Your task to perform on an android device: Show me popular videos on Youtube Image 0: 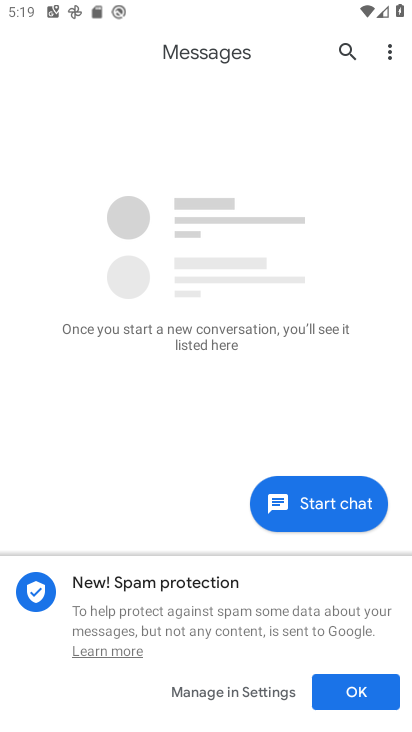
Step 0: press home button
Your task to perform on an android device: Show me popular videos on Youtube Image 1: 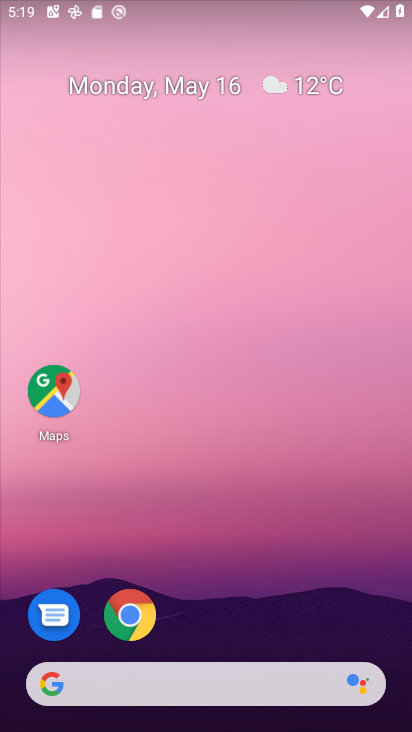
Step 1: press home button
Your task to perform on an android device: Show me popular videos on Youtube Image 2: 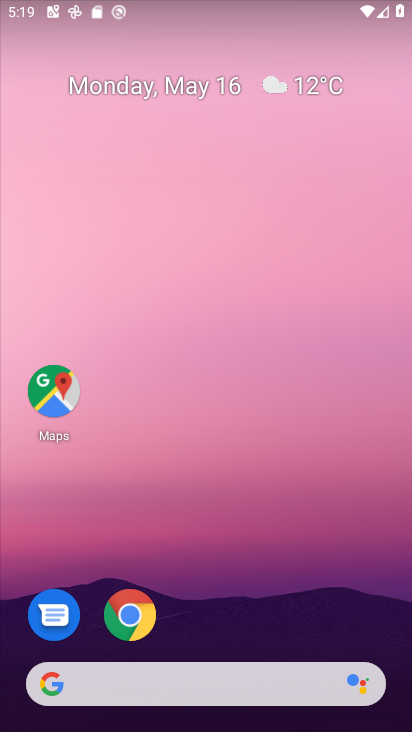
Step 2: drag from (205, 635) to (337, 228)
Your task to perform on an android device: Show me popular videos on Youtube Image 3: 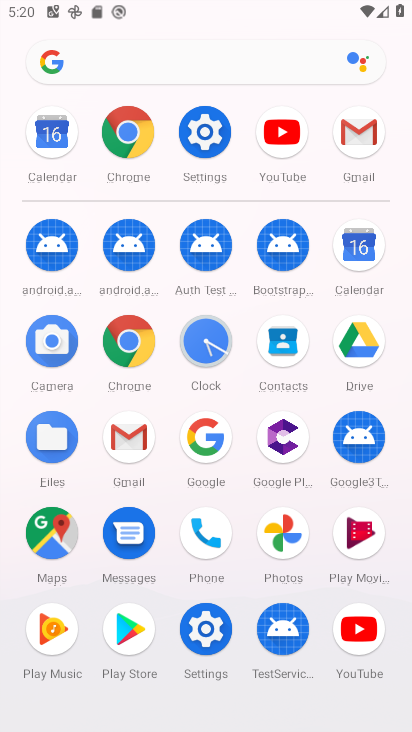
Step 3: click (355, 648)
Your task to perform on an android device: Show me popular videos on Youtube Image 4: 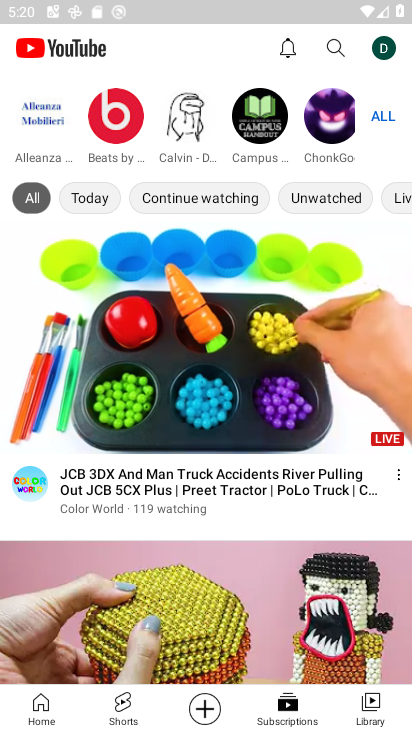
Step 4: task complete